Your task to perform on an android device: see sites visited before in the chrome app Image 0: 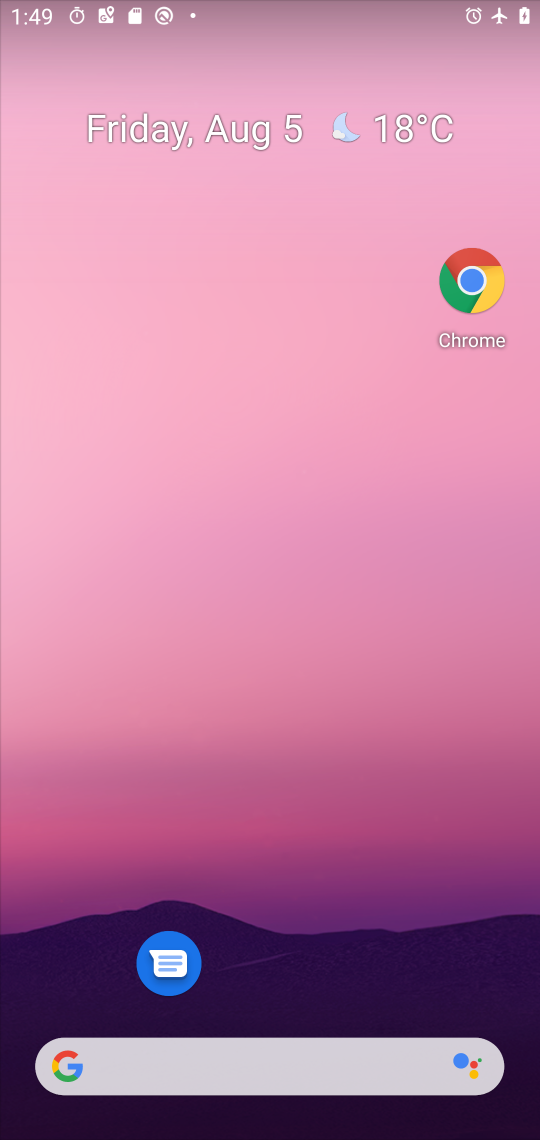
Step 0: drag from (375, 983) to (474, 228)
Your task to perform on an android device: see sites visited before in the chrome app Image 1: 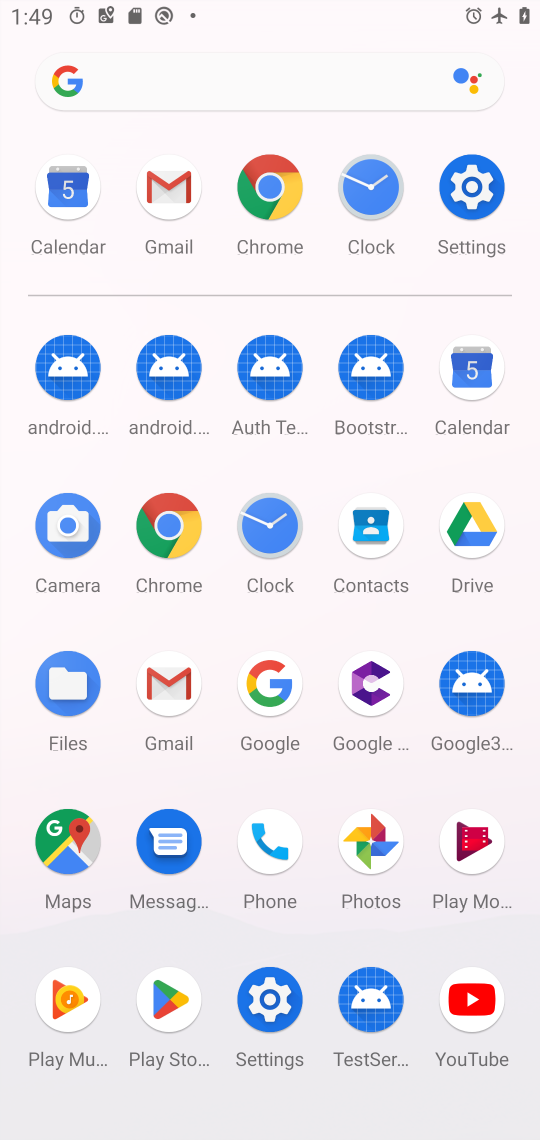
Step 1: click (279, 202)
Your task to perform on an android device: see sites visited before in the chrome app Image 2: 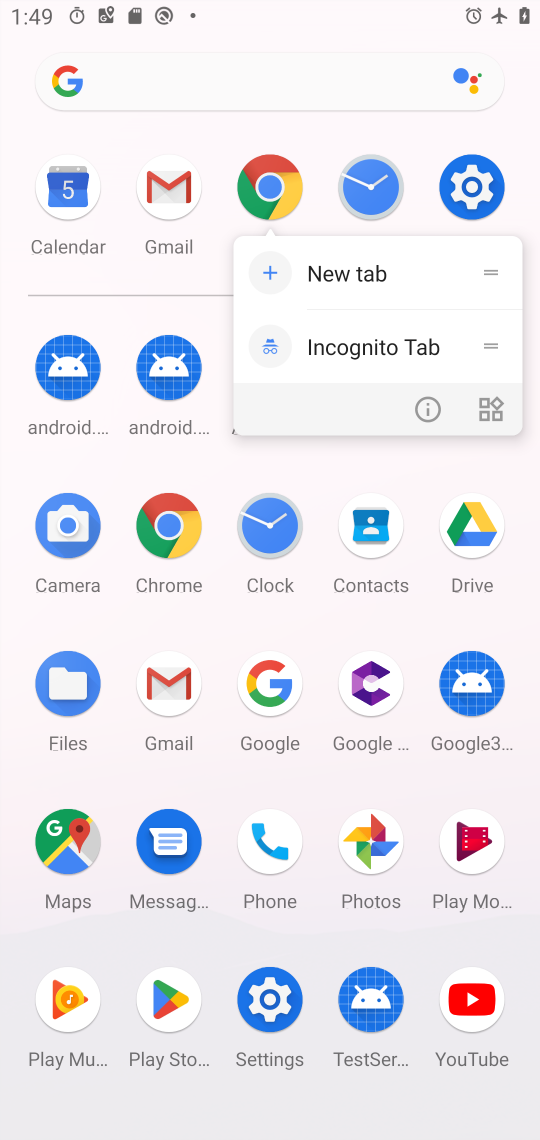
Step 2: click (279, 201)
Your task to perform on an android device: see sites visited before in the chrome app Image 3: 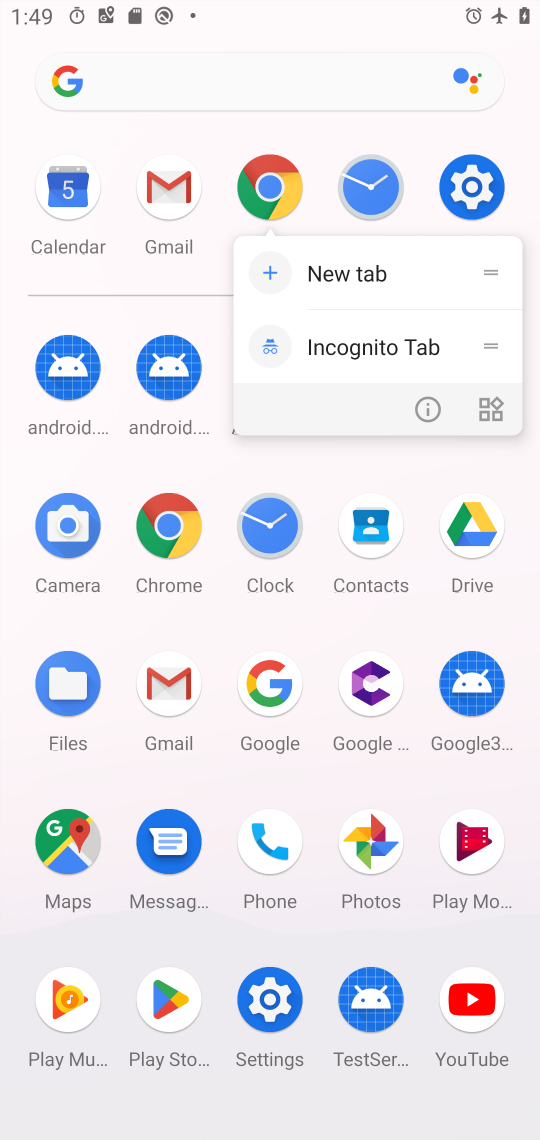
Step 3: click (280, 198)
Your task to perform on an android device: see sites visited before in the chrome app Image 4: 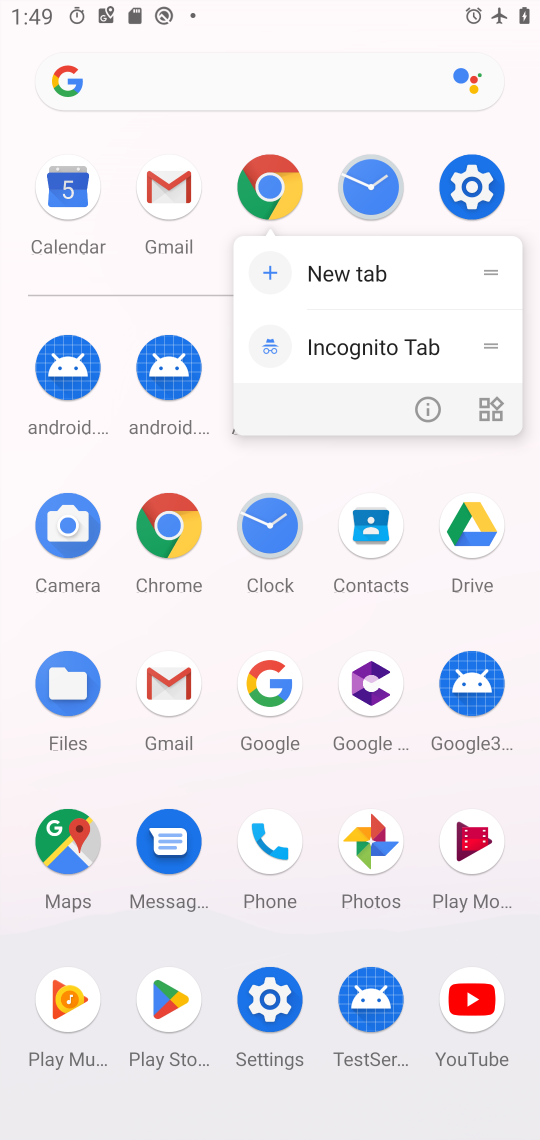
Step 4: click (279, 200)
Your task to perform on an android device: see sites visited before in the chrome app Image 5: 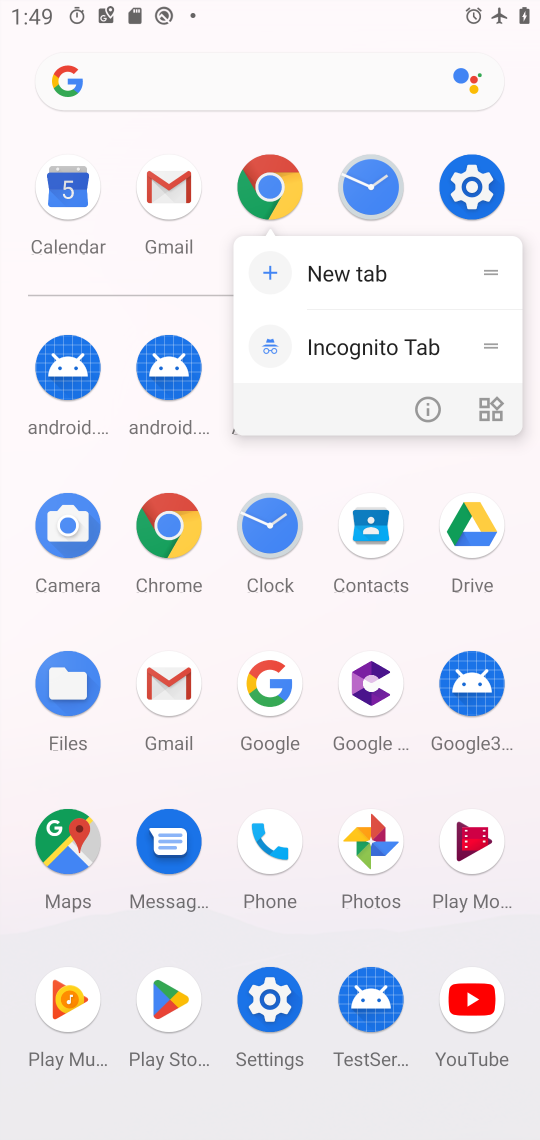
Step 5: click (279, 201)
Your task to perform on an android device: see sites visited before in the chrome app Image 6: 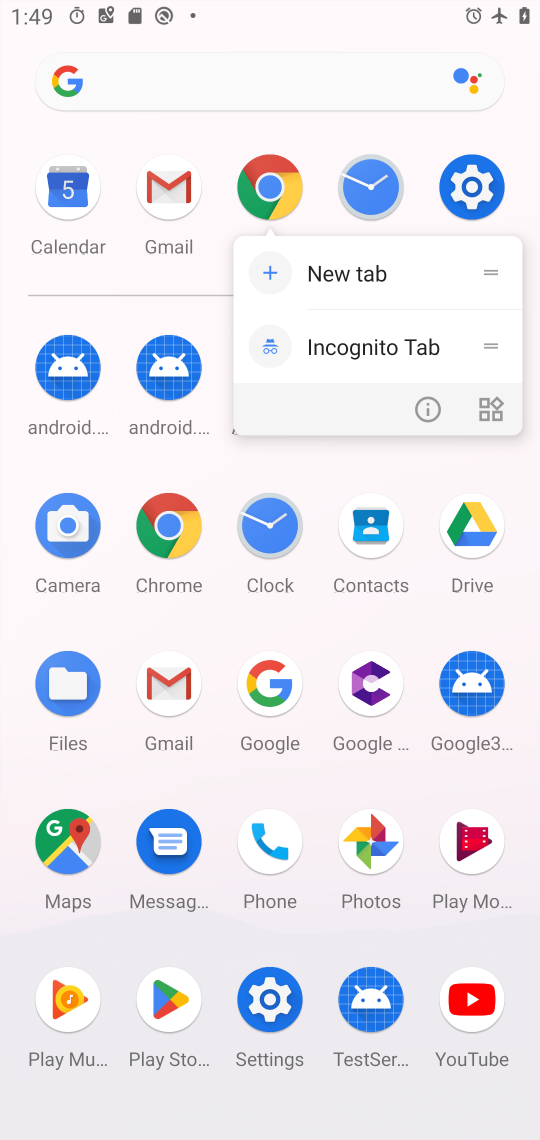
Step 6: click (276, 198)
Your task to perform on an android device: see sites visited before in the chrome app Image 7: 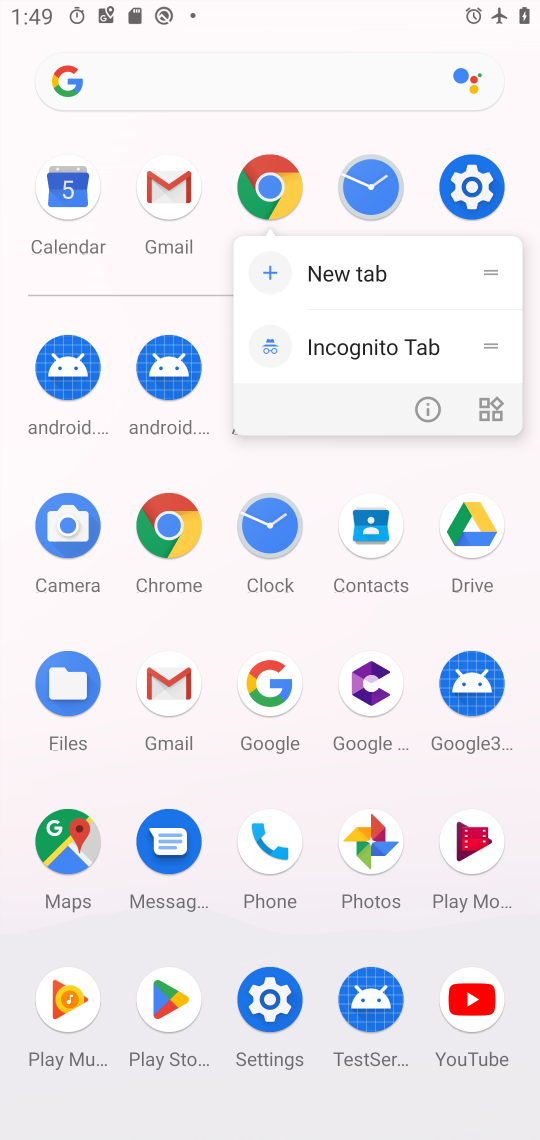
Step 7: click (276, 204)
Your task to perform on an android device: see sites visited before in the chrome app Image 8: 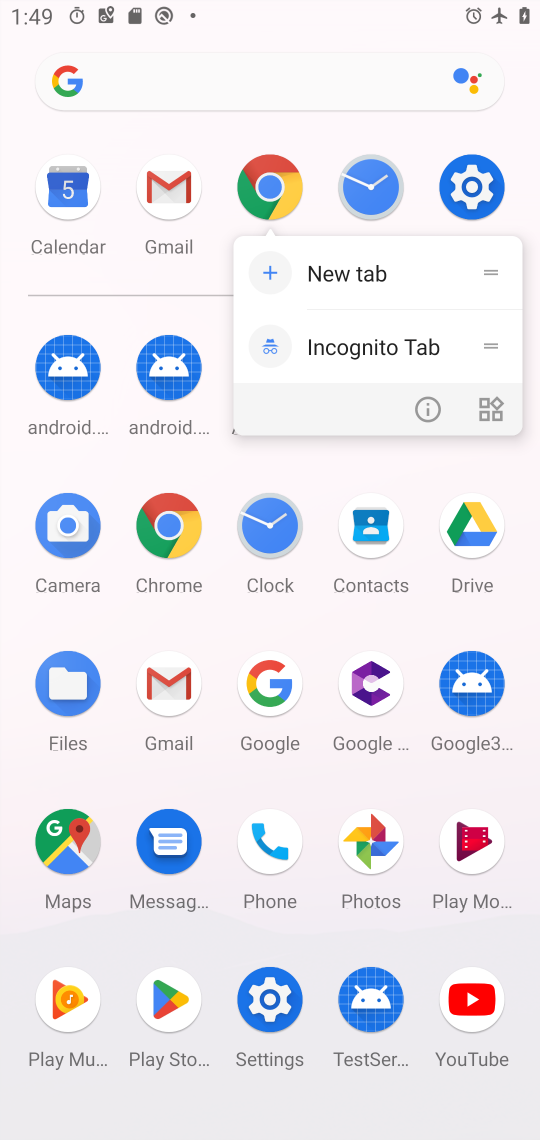
Step 8: click (276, 200)
Your task to perform on an android device: see sites visited before in the chrome app Image 9: 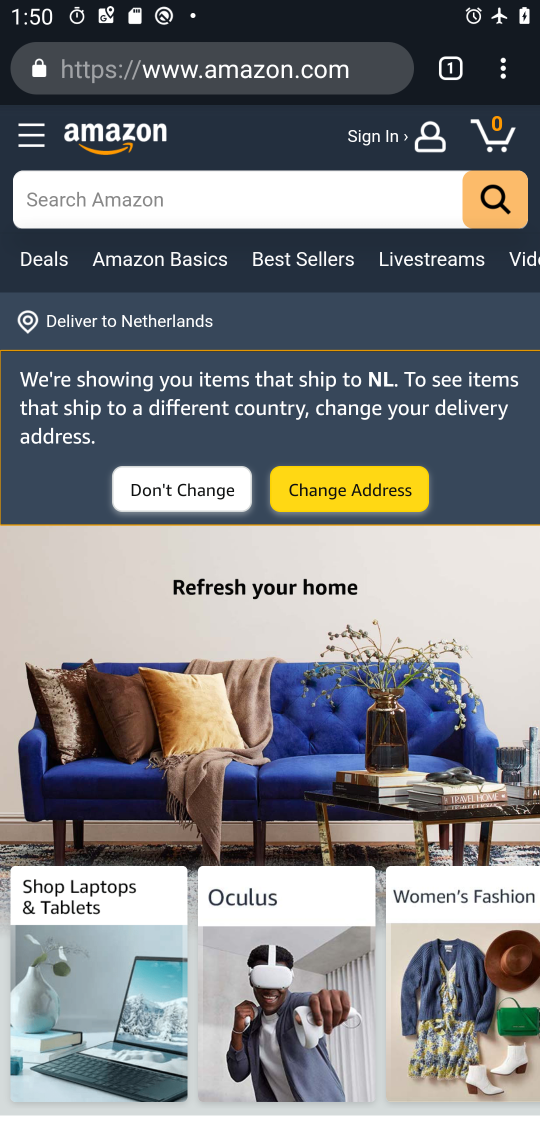
Step 9: drag from (515, 78) to (269, 332)
Your task to perform on an android device: see sites visited before in the chrome app Image 10: 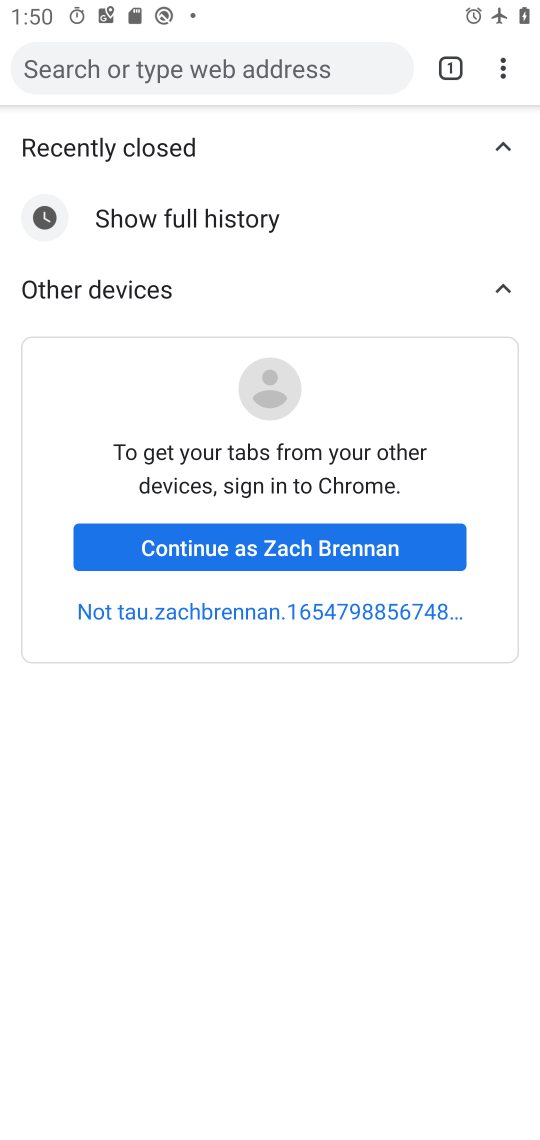
Step 10: click (263, 525)
Your task to perform on an android device: see sites visited before in the chrome app Image 11: 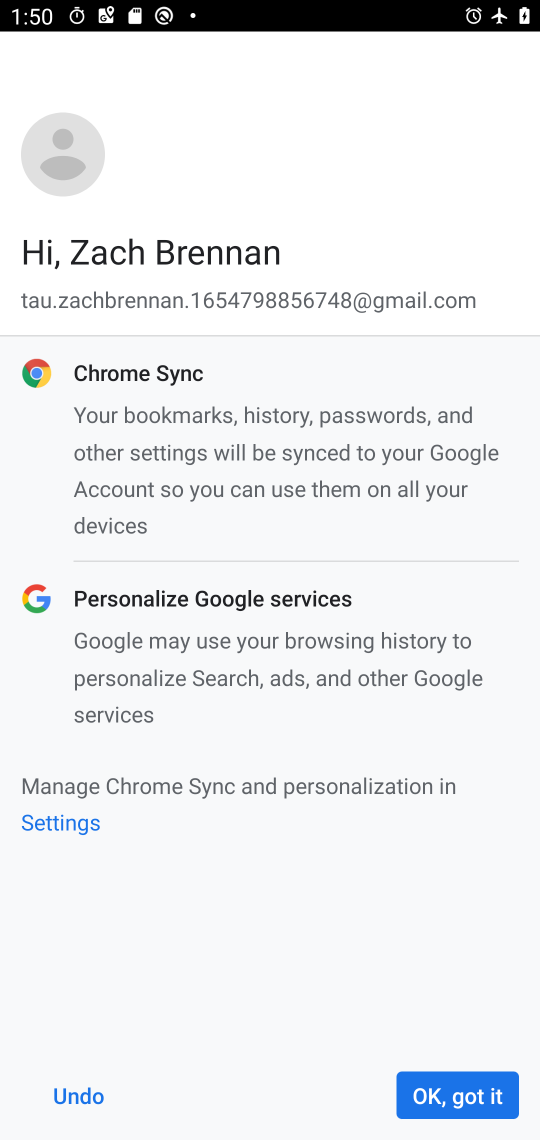
Step 11: click (437, 1105)
Your task to perform on an android device: see sites visited before in the chrome app Image 12: 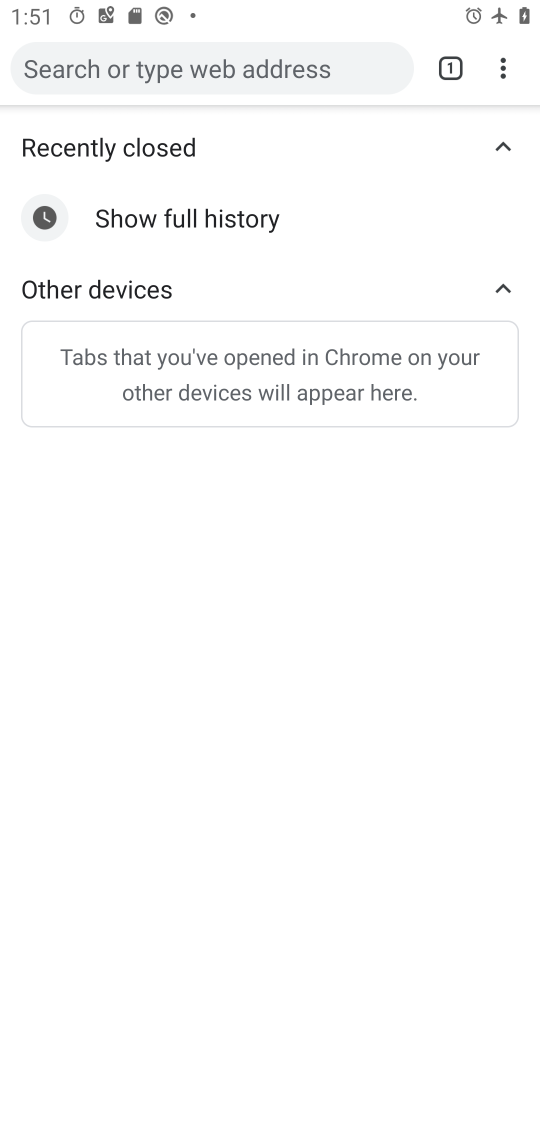
Step 12: task complete